Your task to perform on an android device: Open Chrome and go to the settings page Image 0: 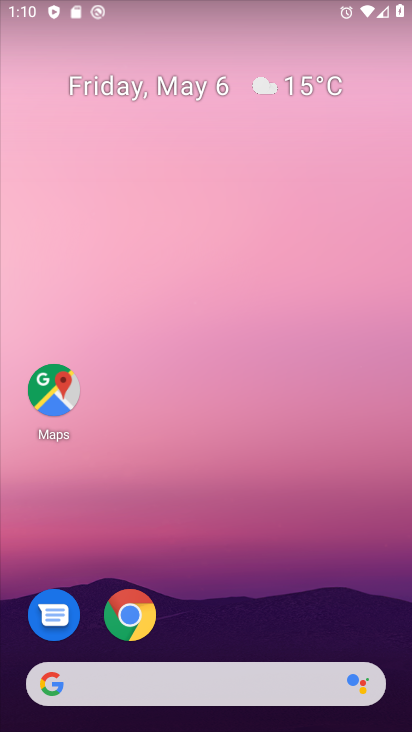
Step 0: drag from (223, 495) to (326, 11)
Your task to perform on an android device: Open Chrome and go to the settings page Image 1: 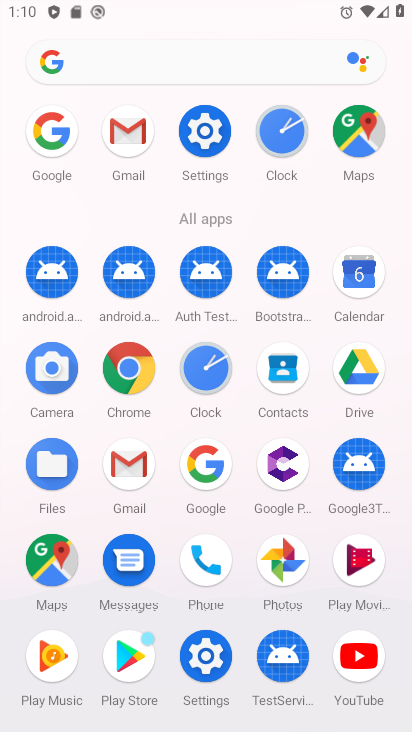
Step 1: click (131, 365)
Your task to perform on an android device: Open Chrome and go to the settings page Image 2: 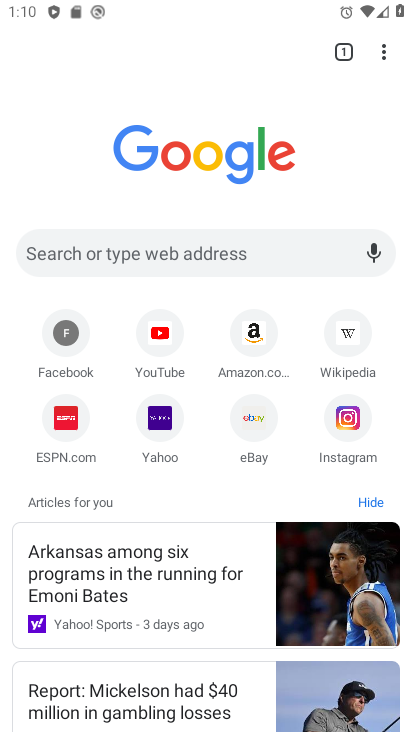
Step 2: task complete